Your task to perform on an android device: turn on airplane mode Image 0: 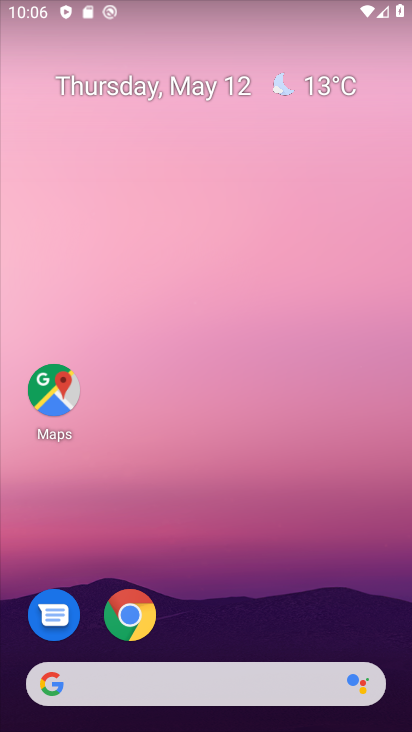
Step 0: drag from (301, 547) to (377, 11)
Your task to perform on an android device: turn on airplane mode Image 1: 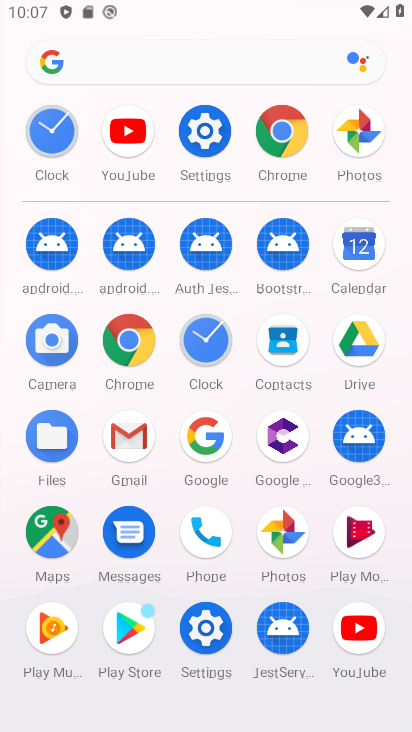
Step 1: click (207, 139)
Your task to perform on an android device: turn on airplane mode Image 2: 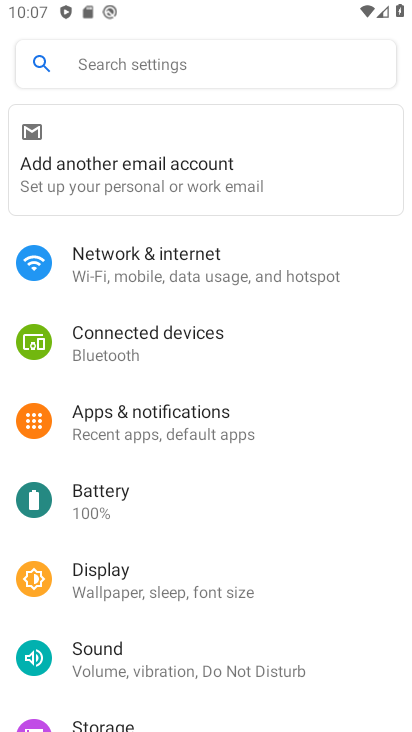
Step 2: click (224, 248)
Your task to perform on an android device: turn on airplane mode Image 3: 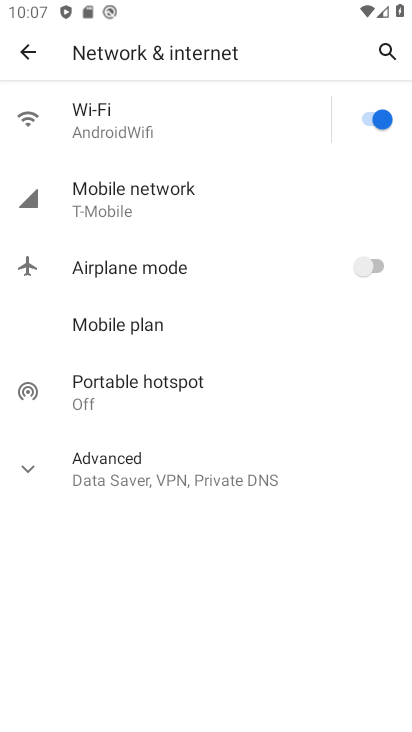
Step 3: click (380, 273)
Your task to perform on an android device: turn on airplane mode Image 4: 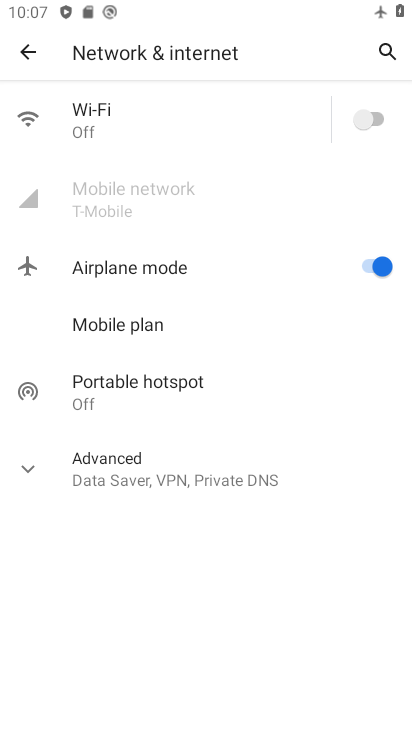
Step 4: task complete